Your task to perform on an android device: add a label to a message in the gmail app Image 0: 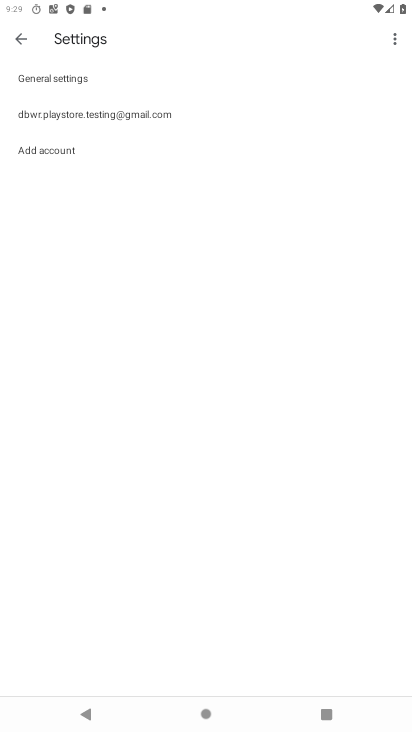
Step 0: press home button
Your task to perform on an android device: add a label to a message in the gmail app Image 1: 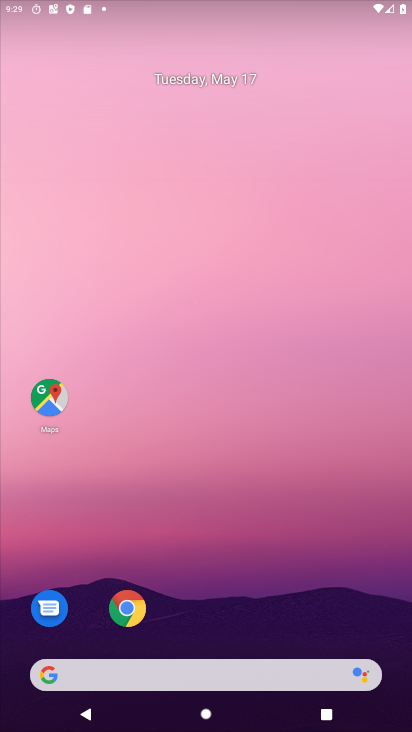
Step 1: drag from (379, 559) to (284, 201)
Your task to perform on an android device: add a label to a message in the gmail app Image 2: 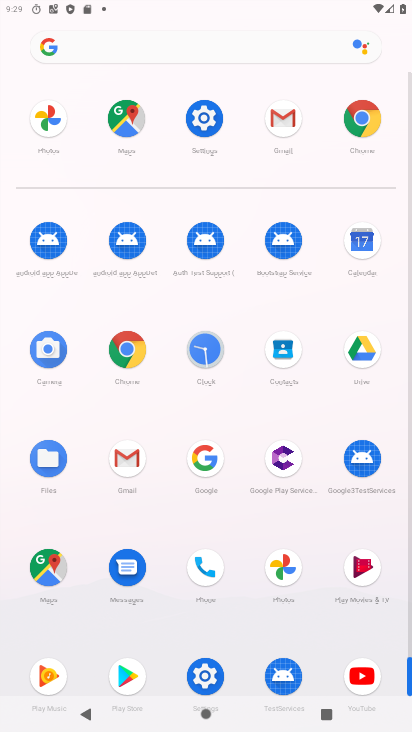
Step 2: click (125, 469)
Your task to perform on an android device: add a label to a message in the gmail app Image 3: 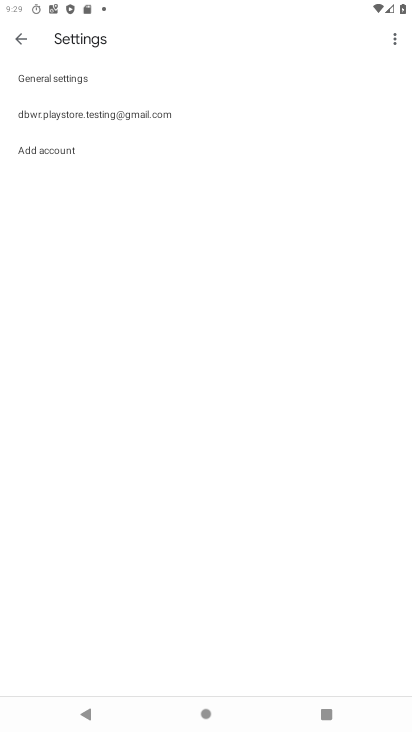
Step 3: click (138, 125)
Your task to perform on an android device: add a label to a message in the gmail app Image 4: 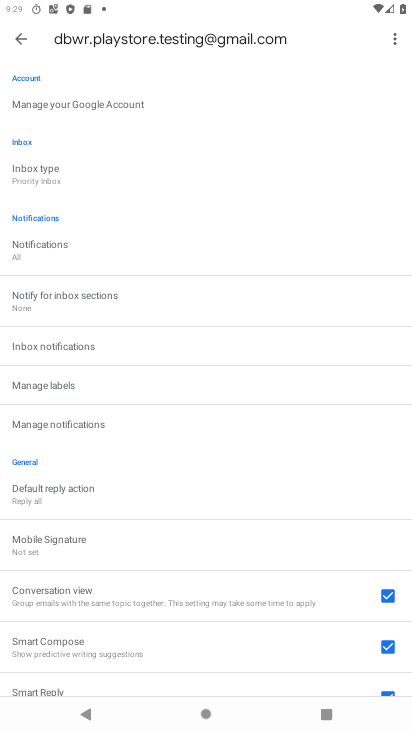
Step 4: drag from (228, 572) to (219, 253)
Your task to perform on an android device: add a label to a message in the gmail app Image 5: 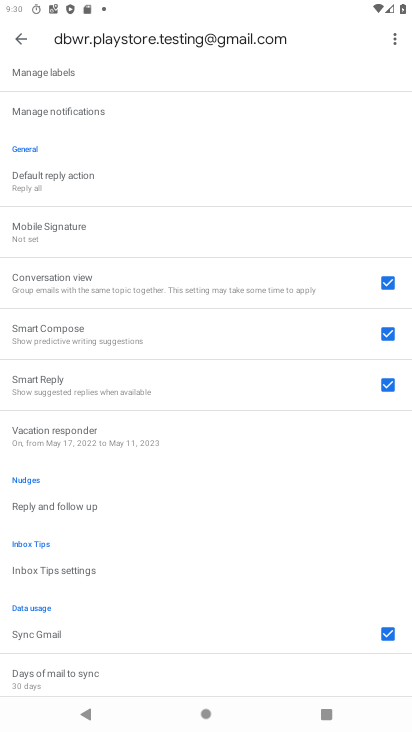
Step 5: drag from (149, 167) to (194, 626)
Your task to perform on an android device: add a label to a message in the gmail app Image 6: 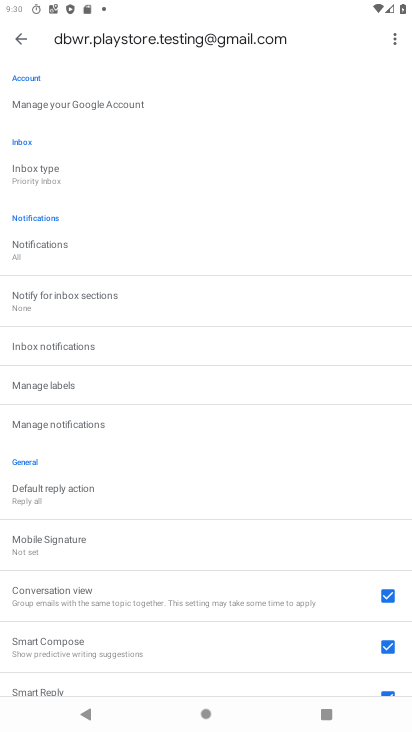
Step 6: click (24, 44)
Your task to perform on an android device: add a label to a message in the gmail app Image 7: 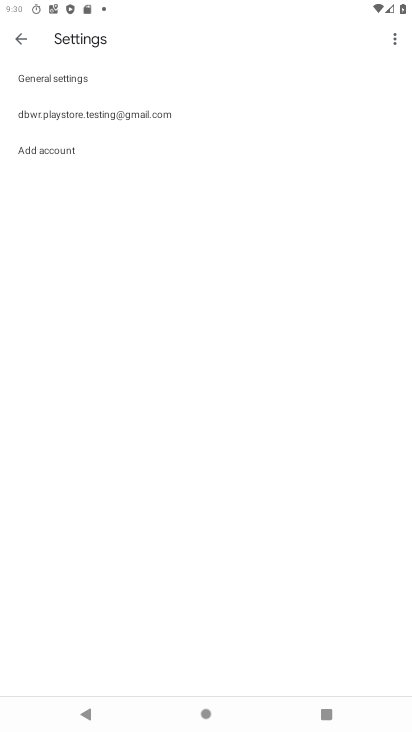
Step 7: click (24, 44)
Your task to perform on an android device: add a label to a message in the gmail app Image 8: 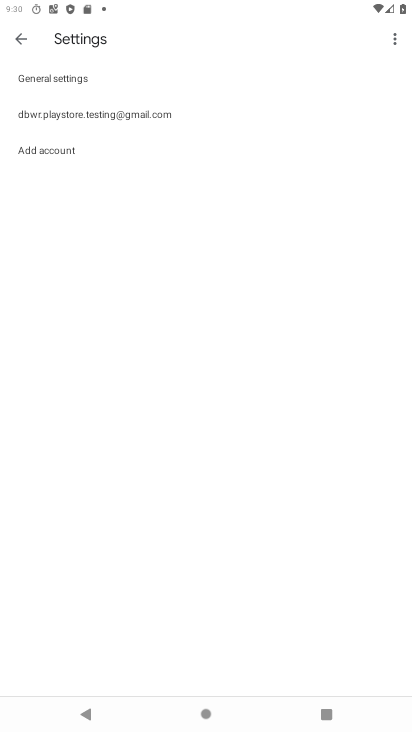
Step 8: click (24, 44)
Your task to perform on an android device: add a label to a message in the gmail app Image 9: 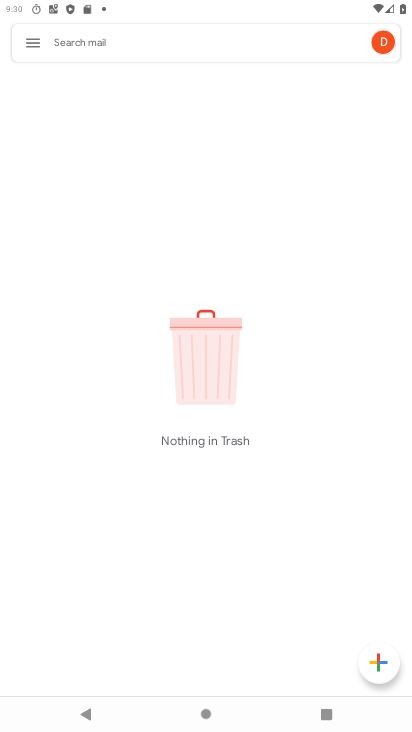
Step 9: click (25, 36)
Your task to perform on an android device: add a label to a message in the gmail app Image 10: 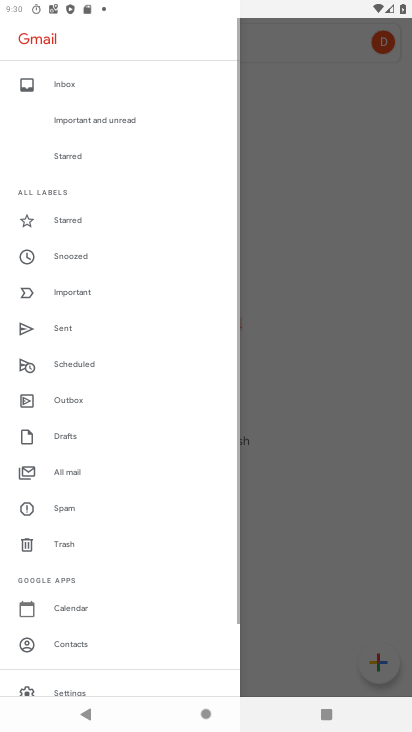
Step 10: task complete